Your task to perform on an android device: turn pop-ups off in chrome Image 0: 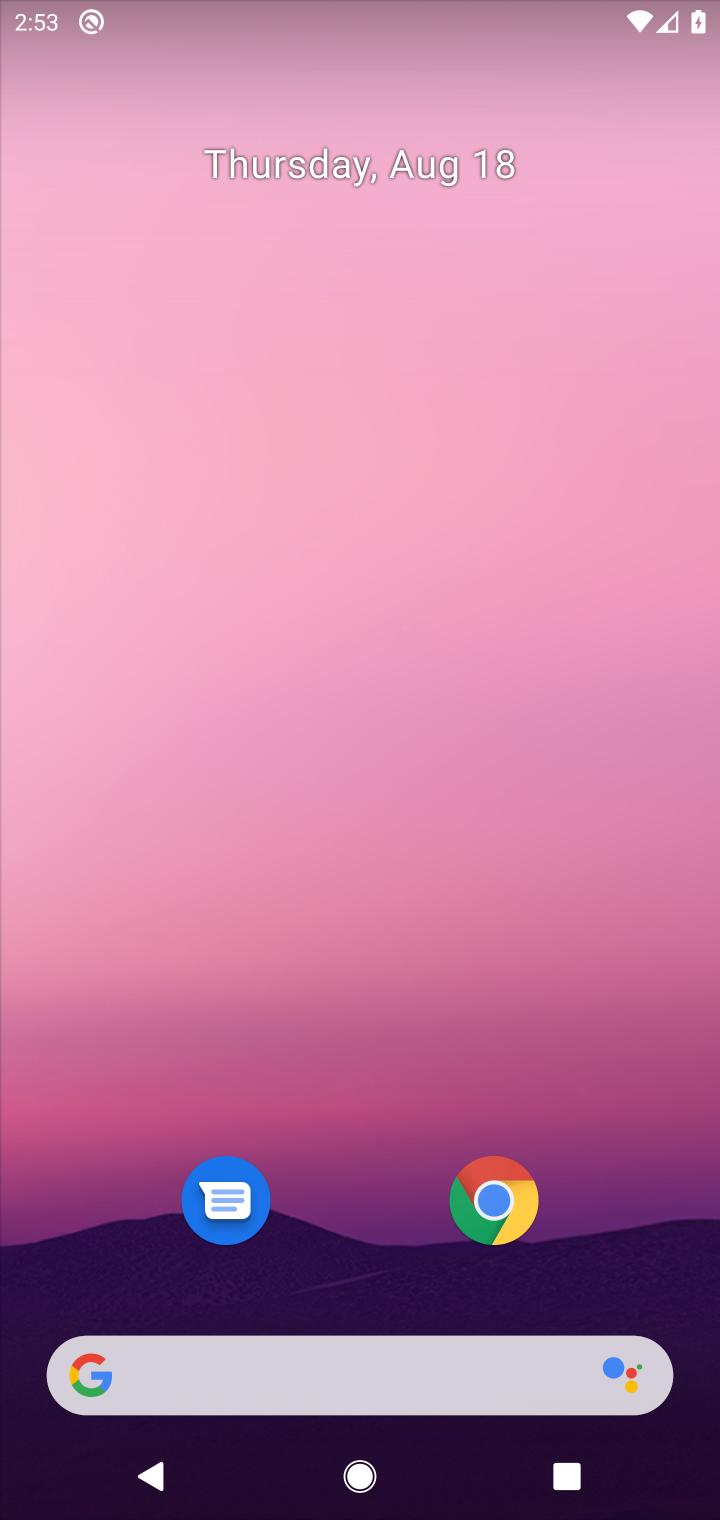
Step 0: drag from (388, 1199) to (541, 6)
Your task to perform on an android device: turn pop-ups off in chrome Image 1: 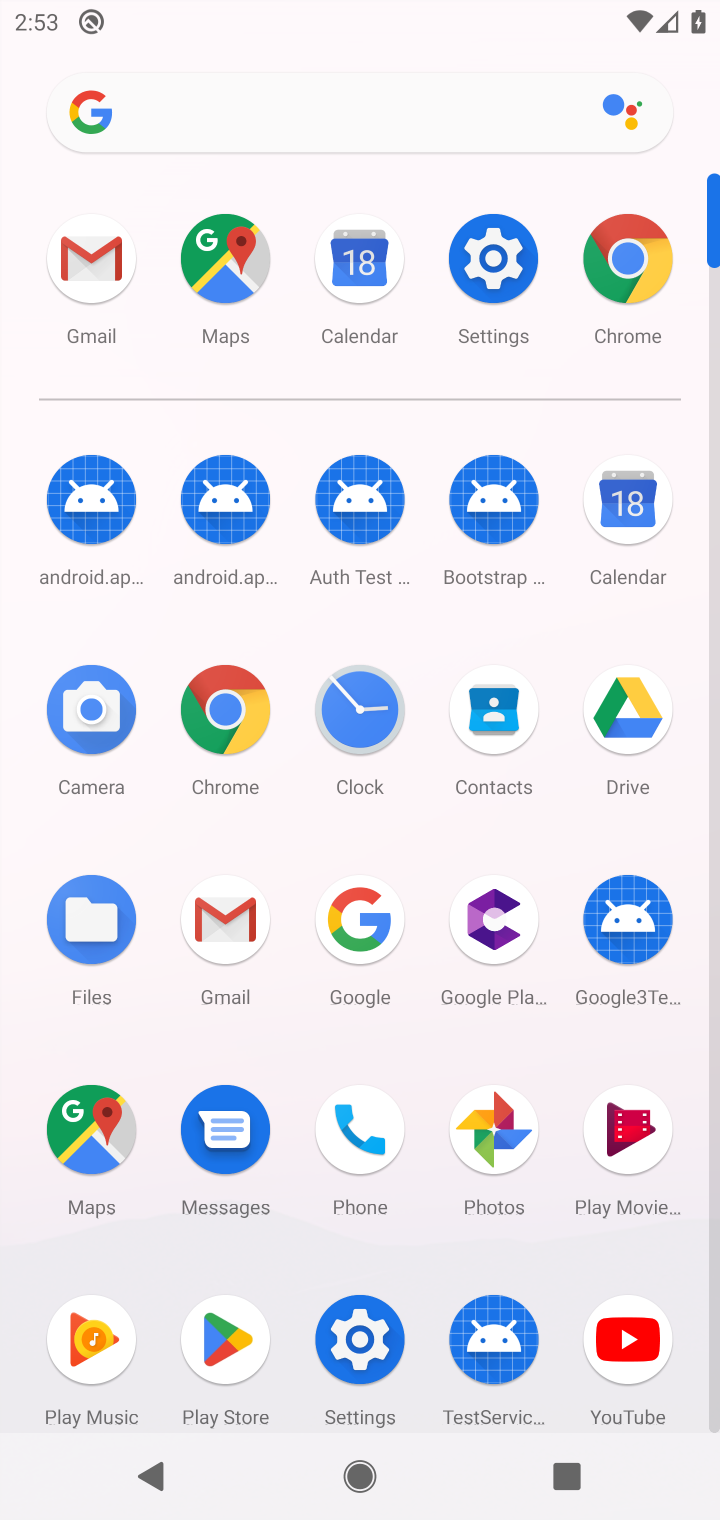
Step 1: click (200, 719)
Your task to perform on an android device: turn pop-ups off in chrome Image 2: 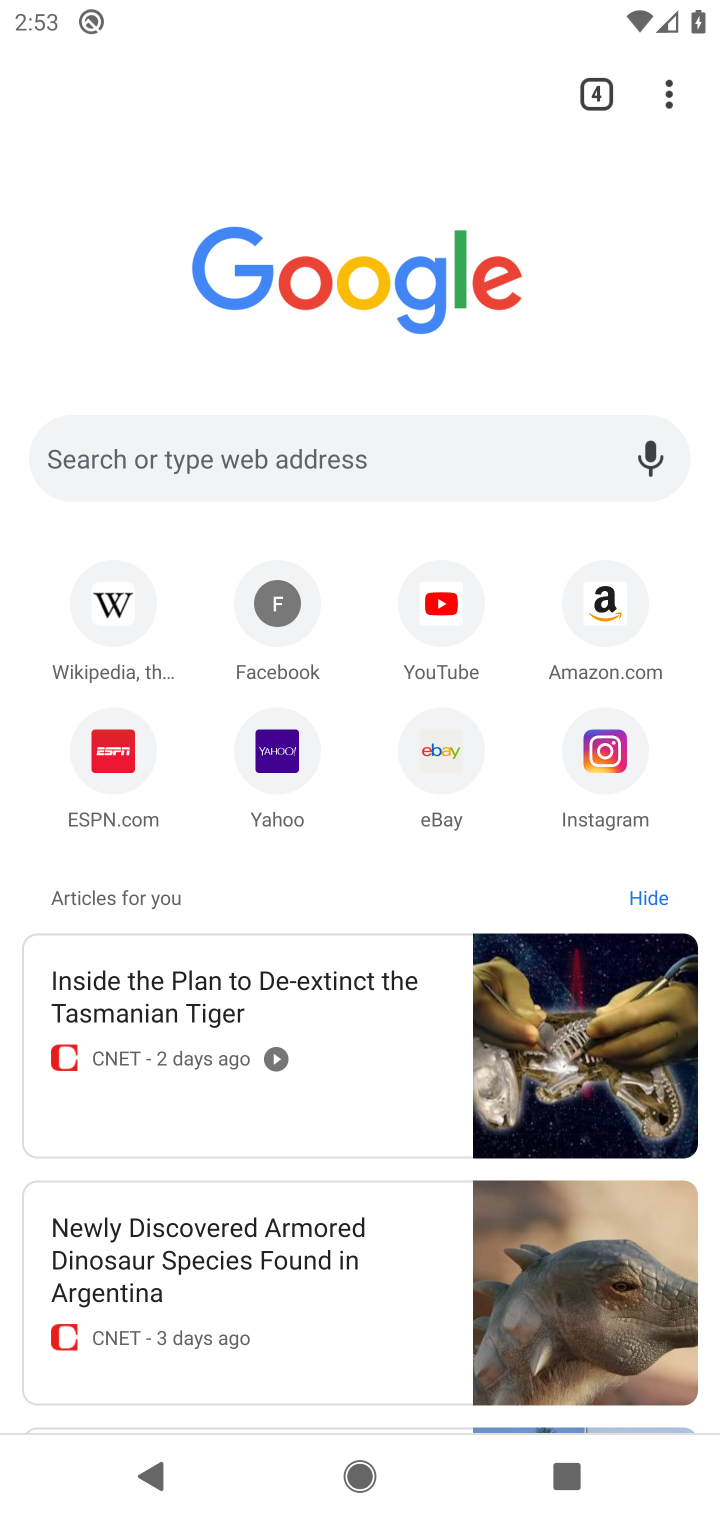
Step 2: drag from (669, 70) to (306, 786)
Your task to perform on an android device: turn pop-ups off in chrome Image 3: 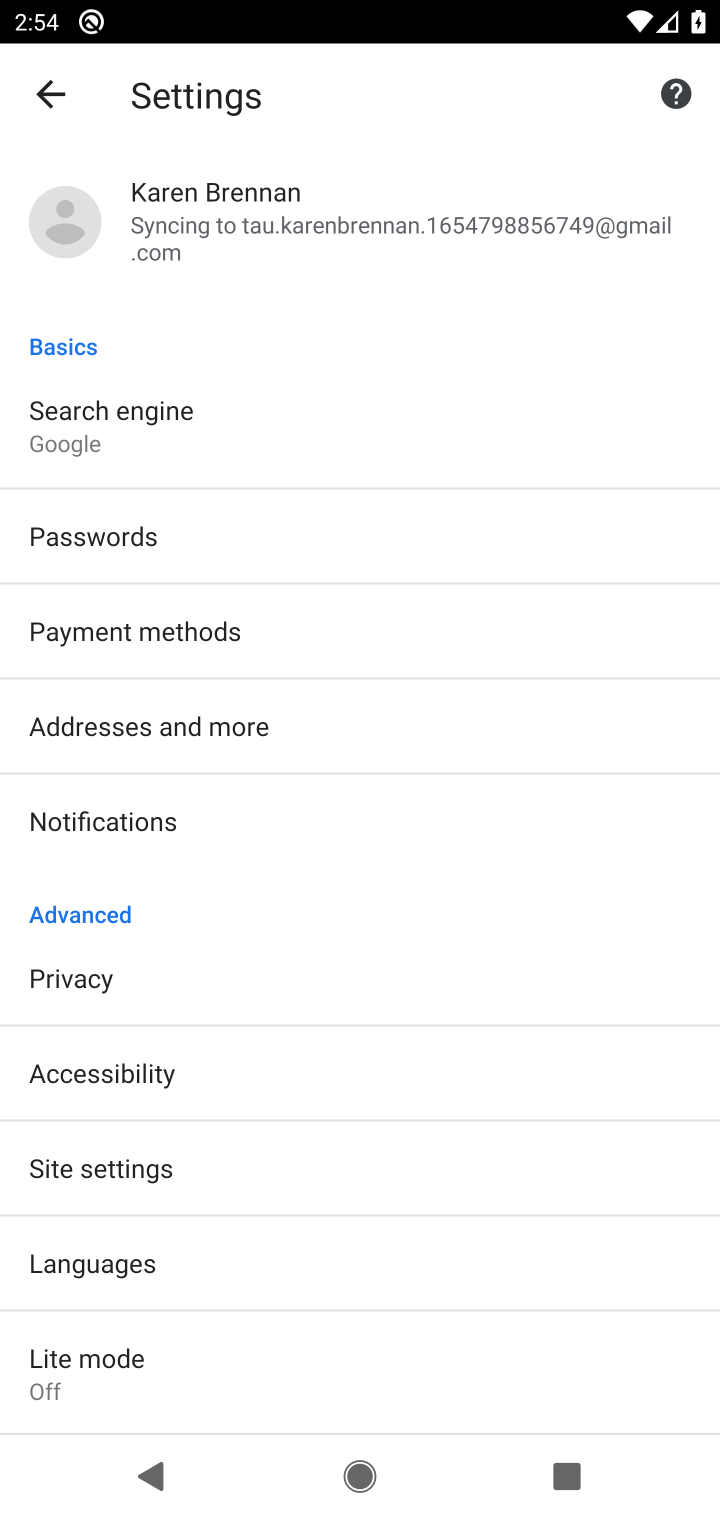
Step 3: drag from (254, 1232) to (249, 692)
Your task to perform on an android device: turn pop-ups off in chrome Image 4: 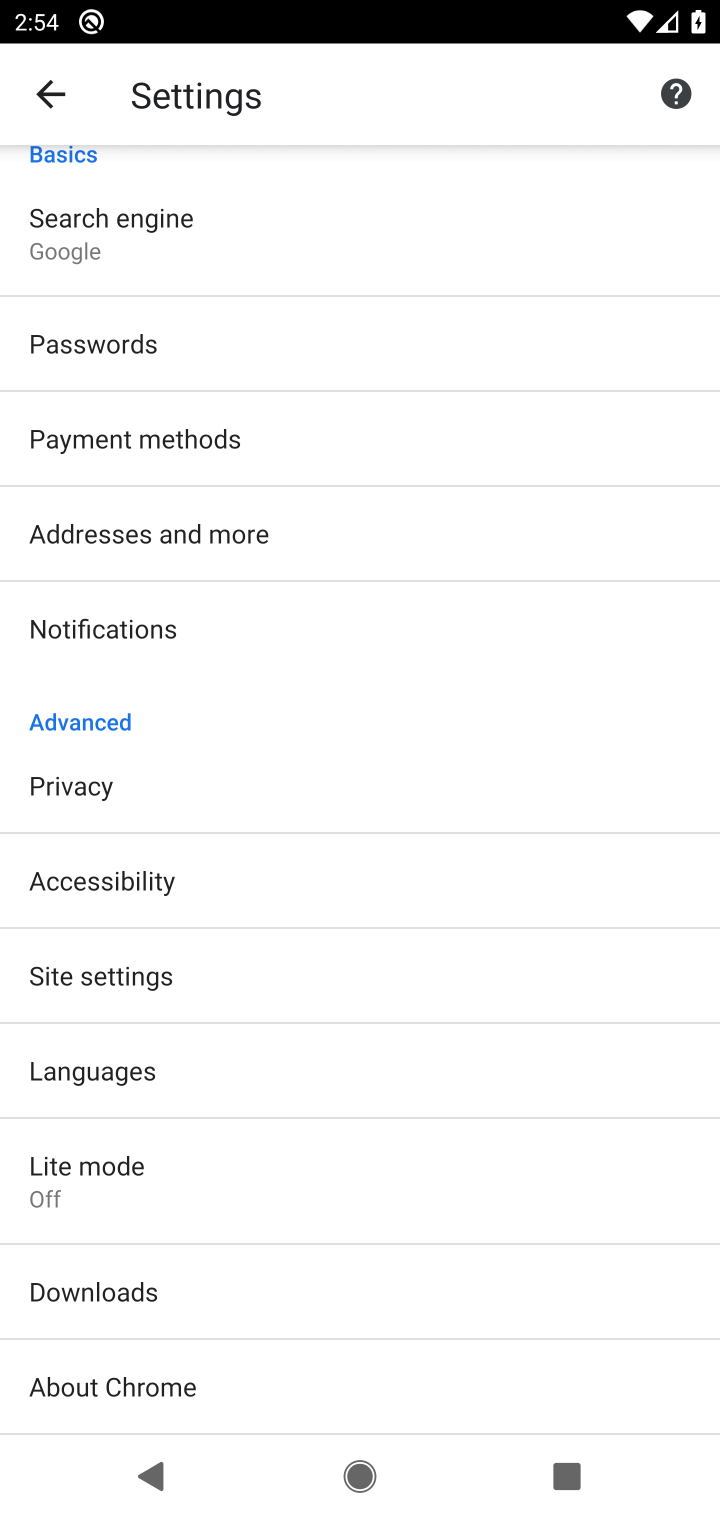
Step 4: click (142, 969)
Your task to perform on an android device: turn pop-ups off in chrome Image 5: 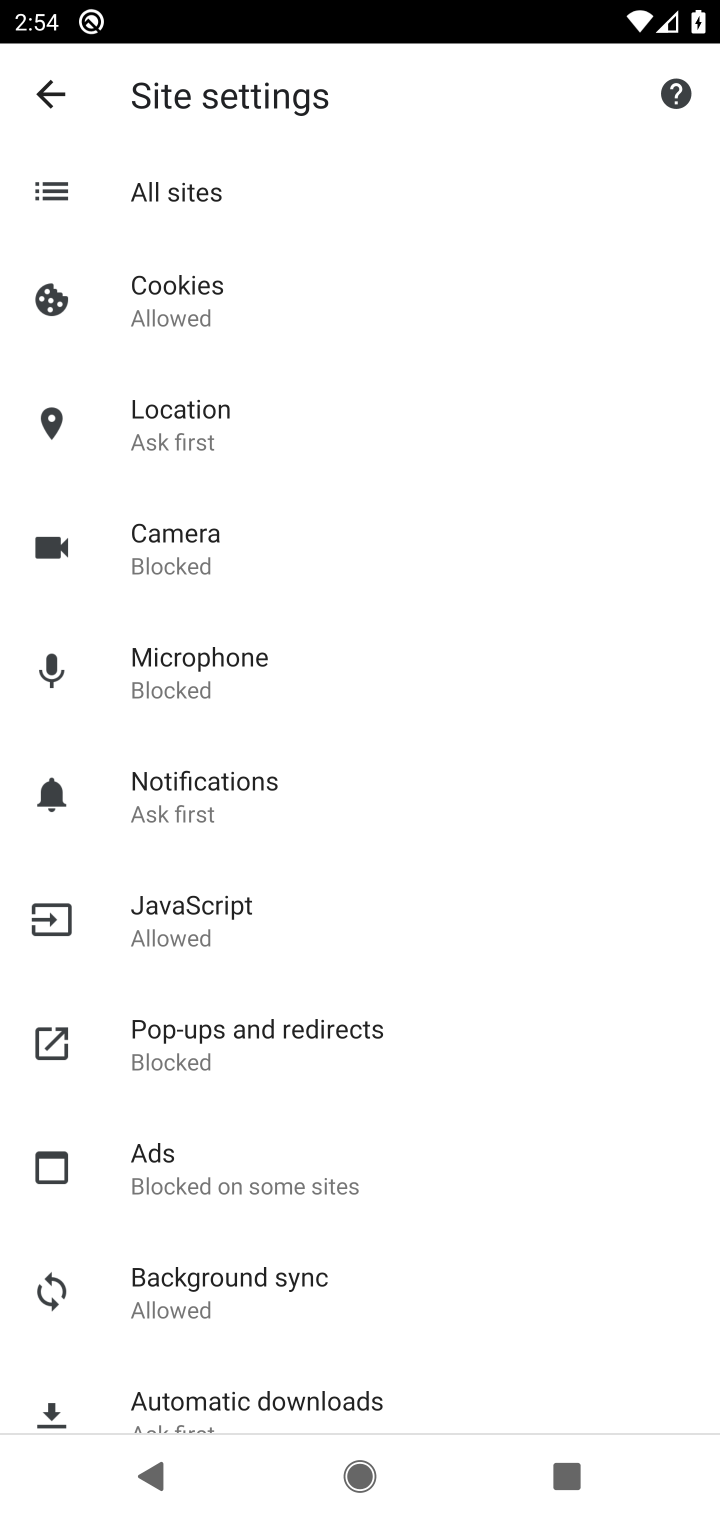
Step 5: click (224, 1023)
Your task to perform on an android device: turn pop-ups off in chrome Image 6: 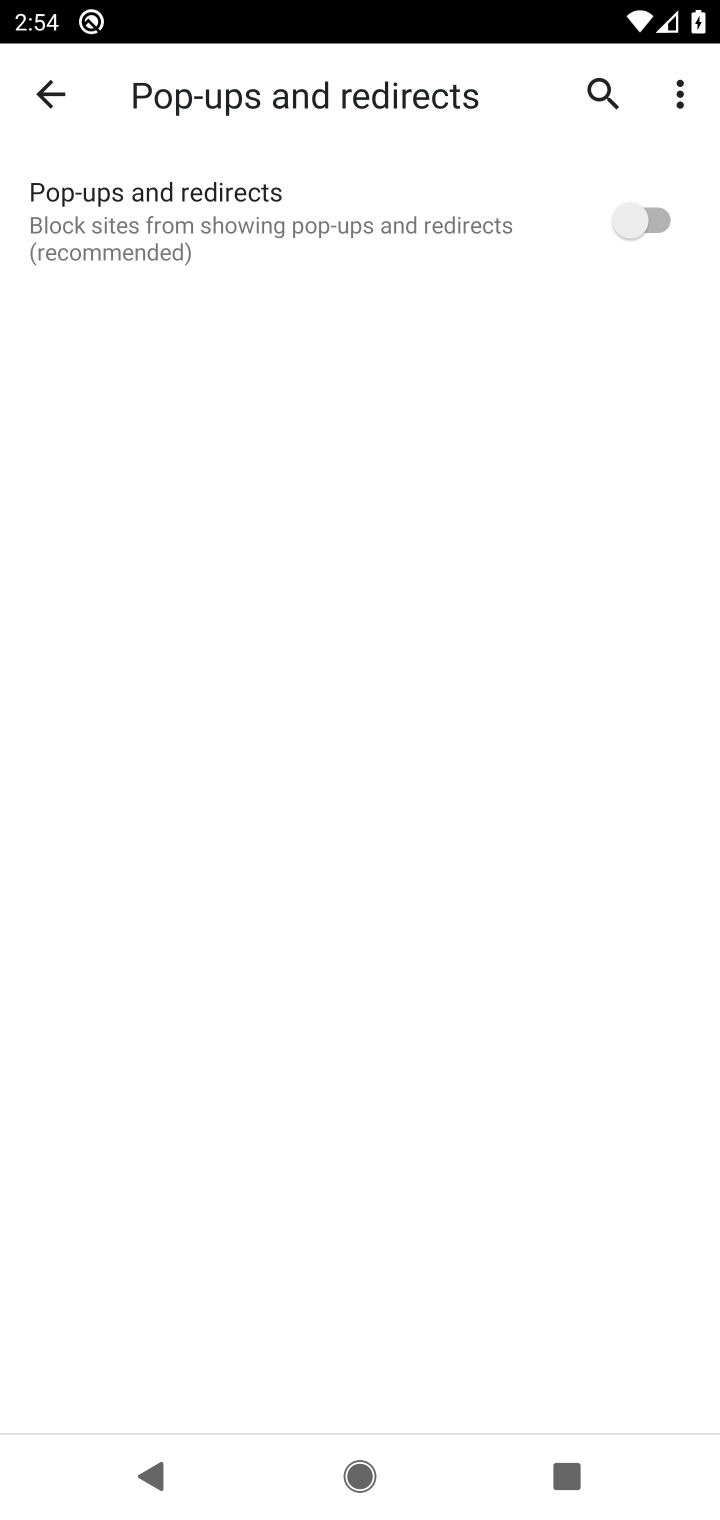
Step 6: task complete